Your task to perform on an android device: all mails in gmail Image 0: 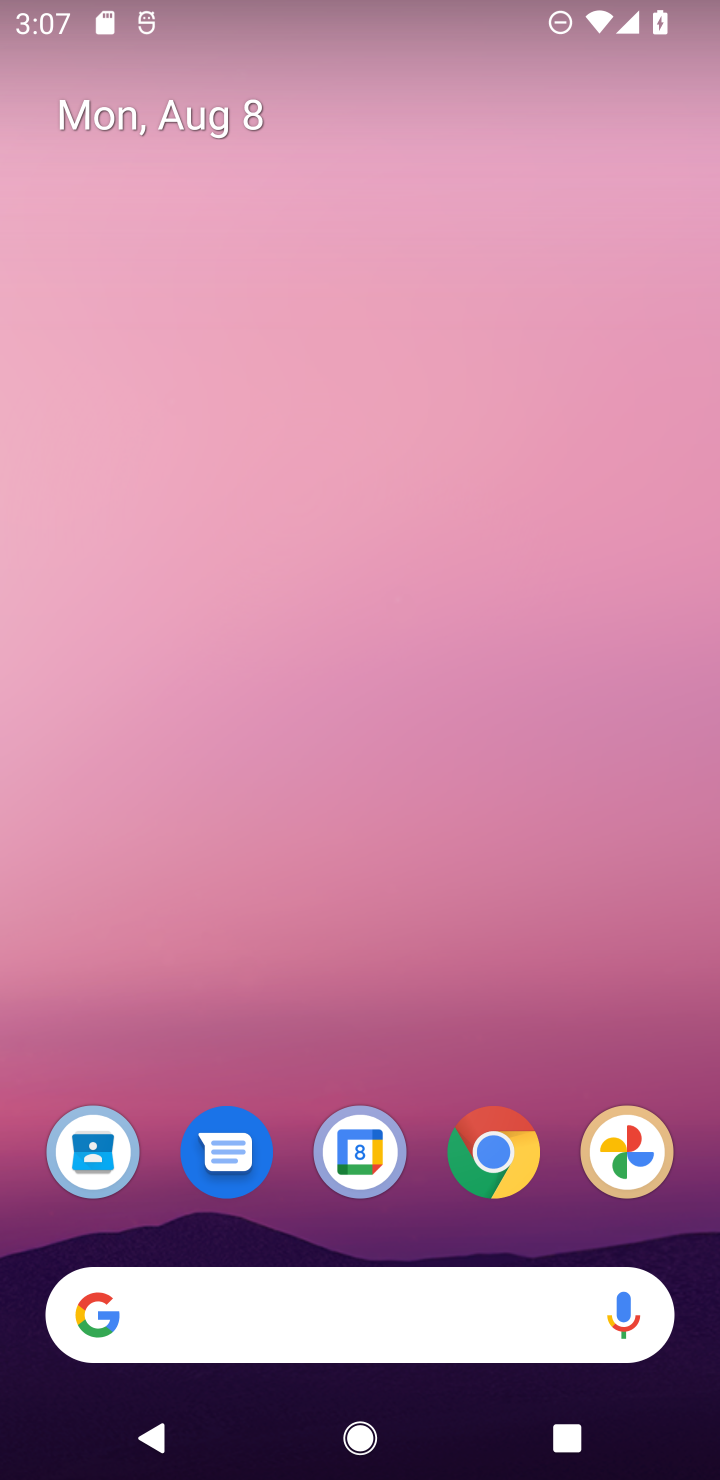
Step 0: drag from (276, 1101) to (254, 84)
Your task to perform on an android device: all mails in gmail Image 1: 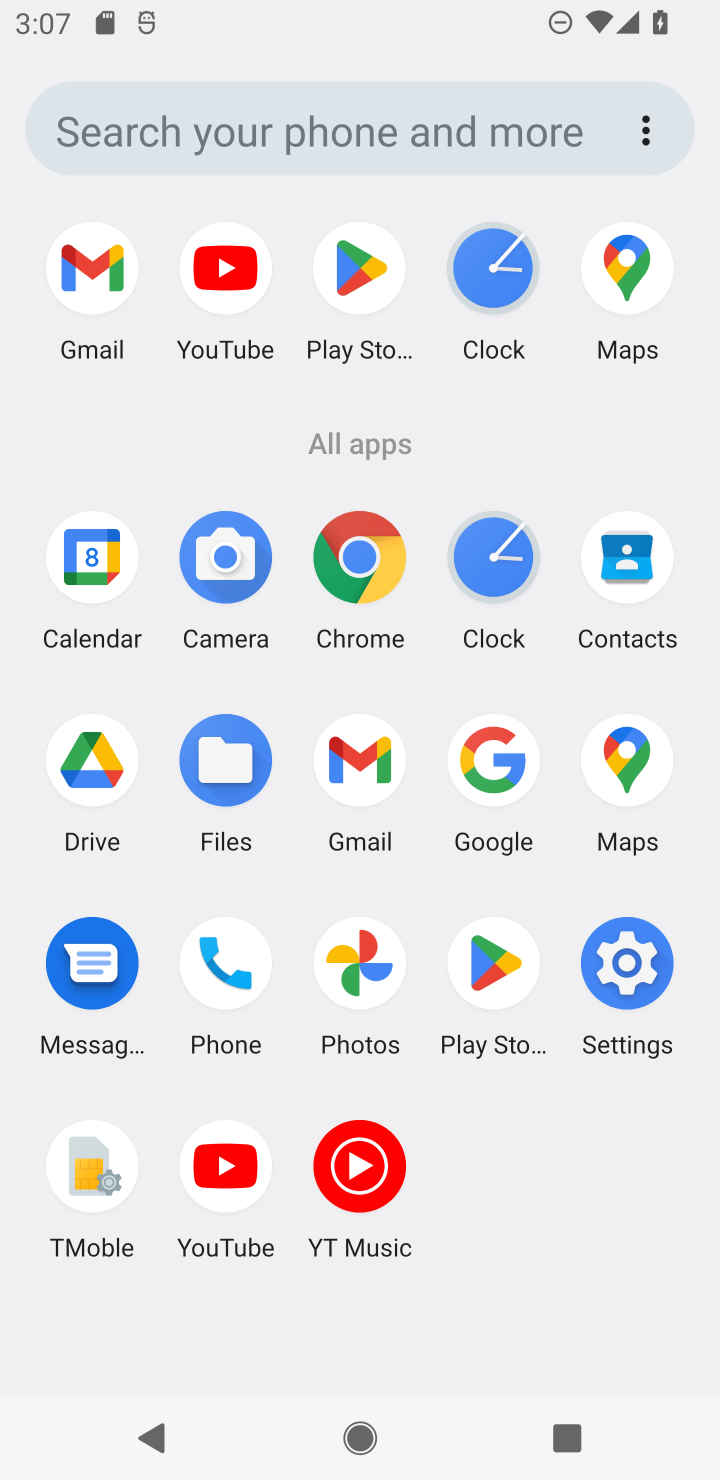
Step 1: click (359, 780)
Your task to perform on an android device: all mails in gmail Image 2: 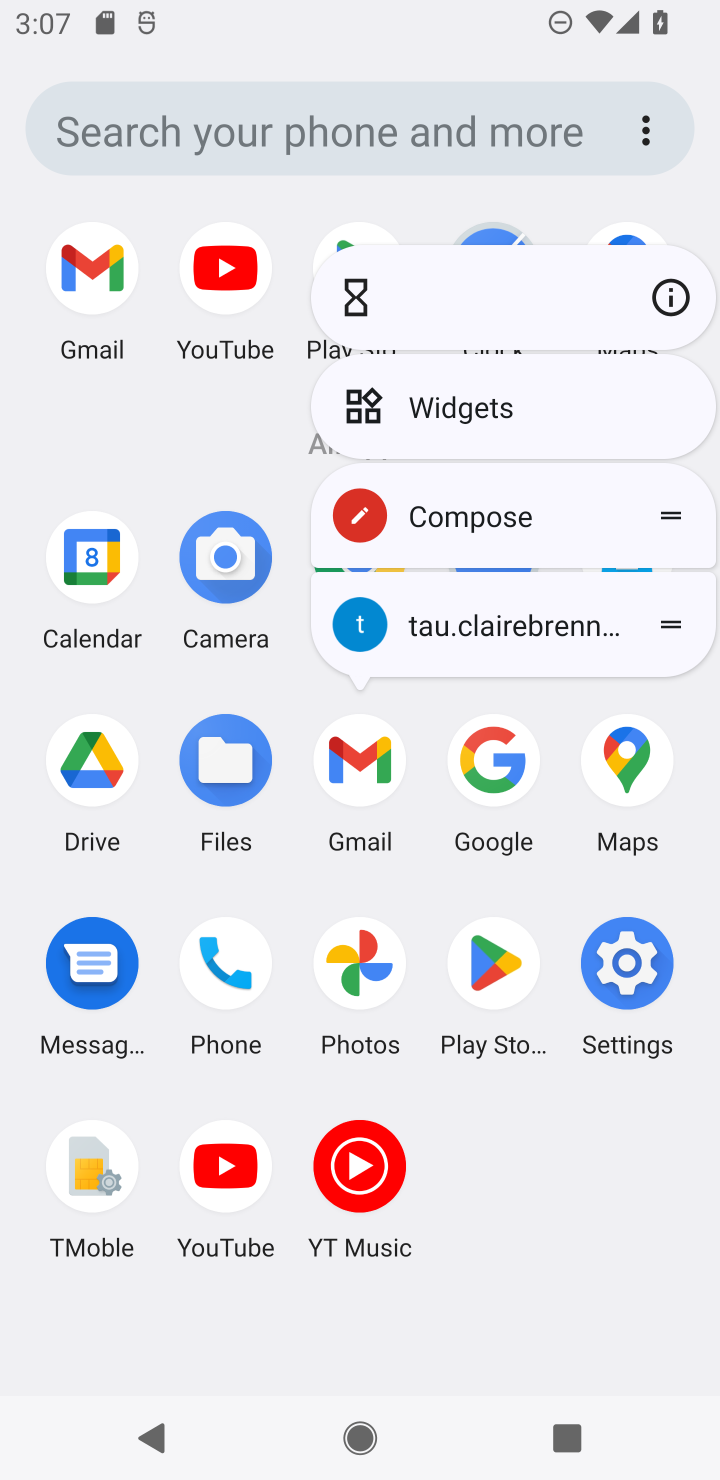
Step 2: click (359, 780)
Your task to perform on an android device: all mails in gmail Image 3: 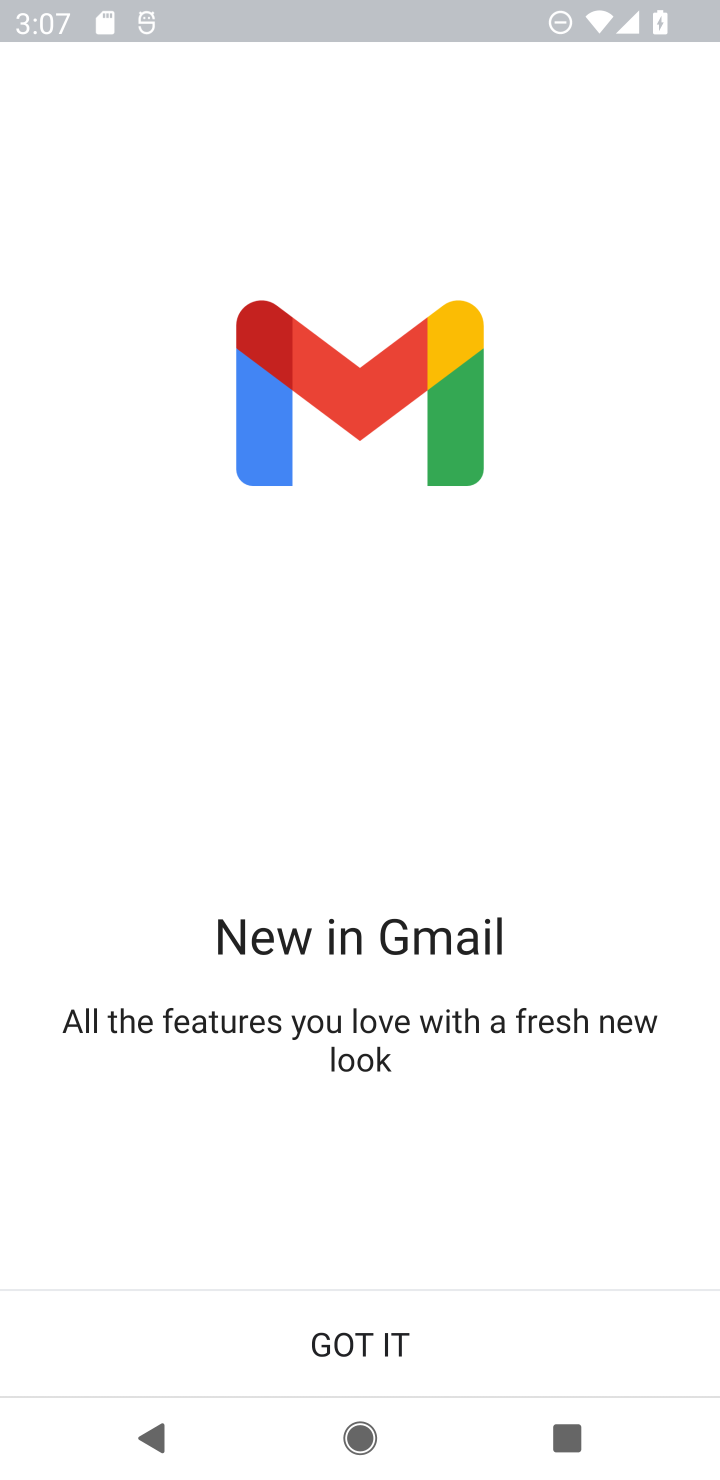
Step 3: click (340, 1364)
Your task to perform on an android device: all mails in gmail Image 4: 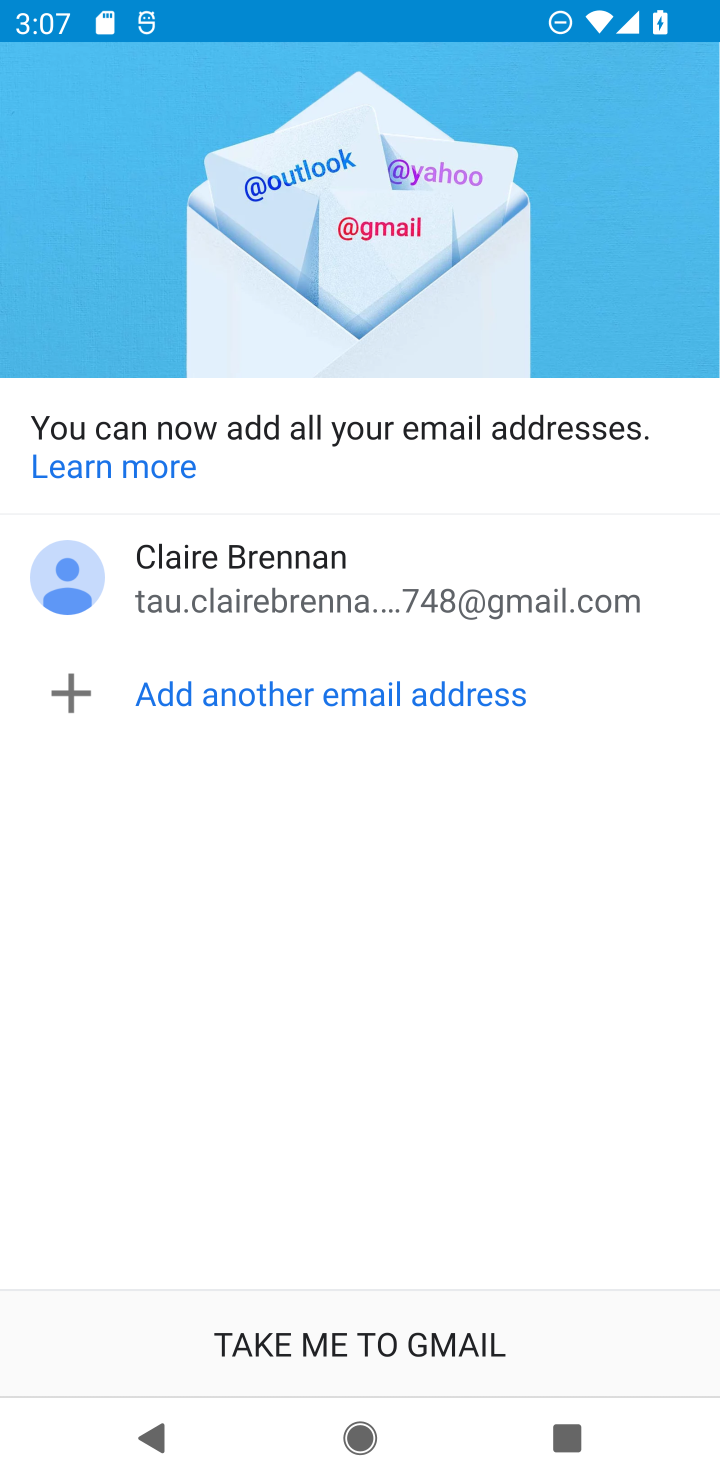
Step 4: click (359, 1346)
Your task to perform on an android device: all mails in gmail Image 5: 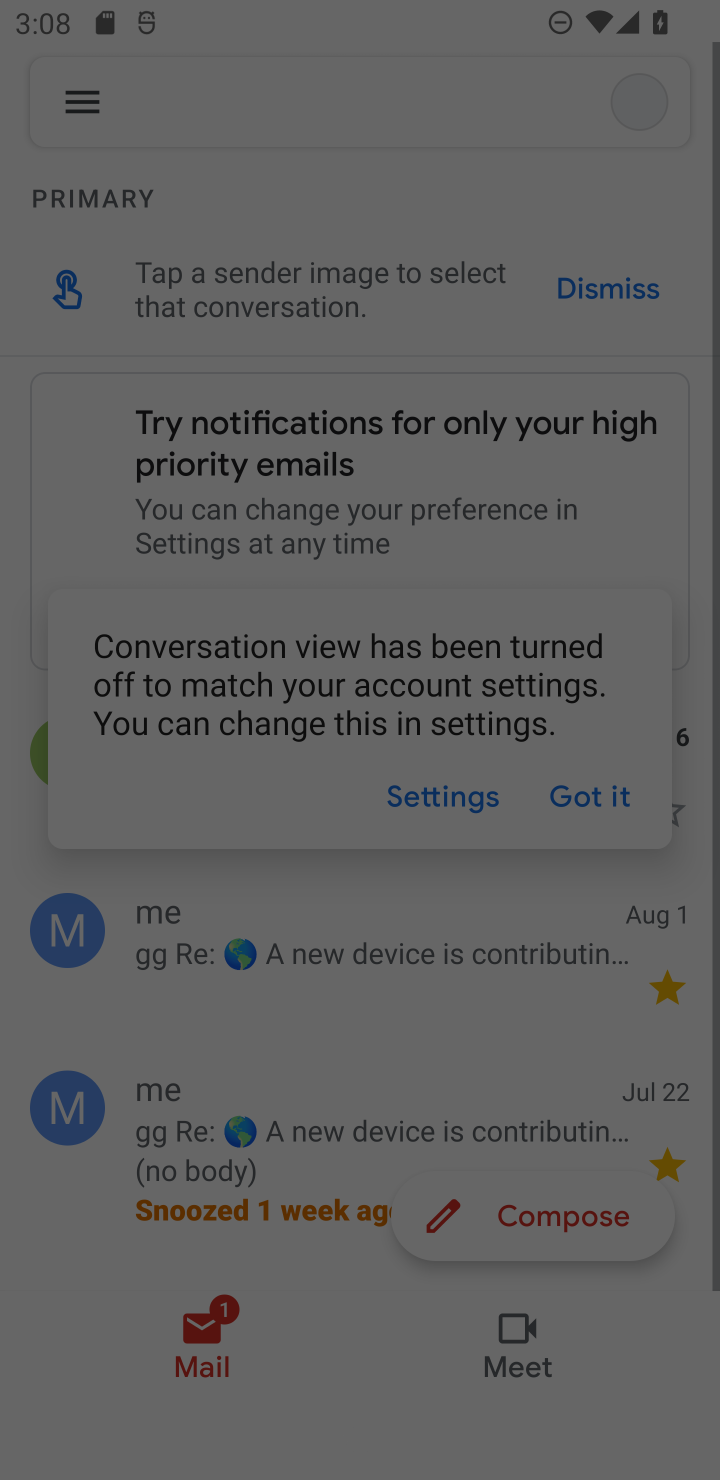
Step 5: click (584, 800)
Your task to perform on an android device: all mails in gmail Image 6: 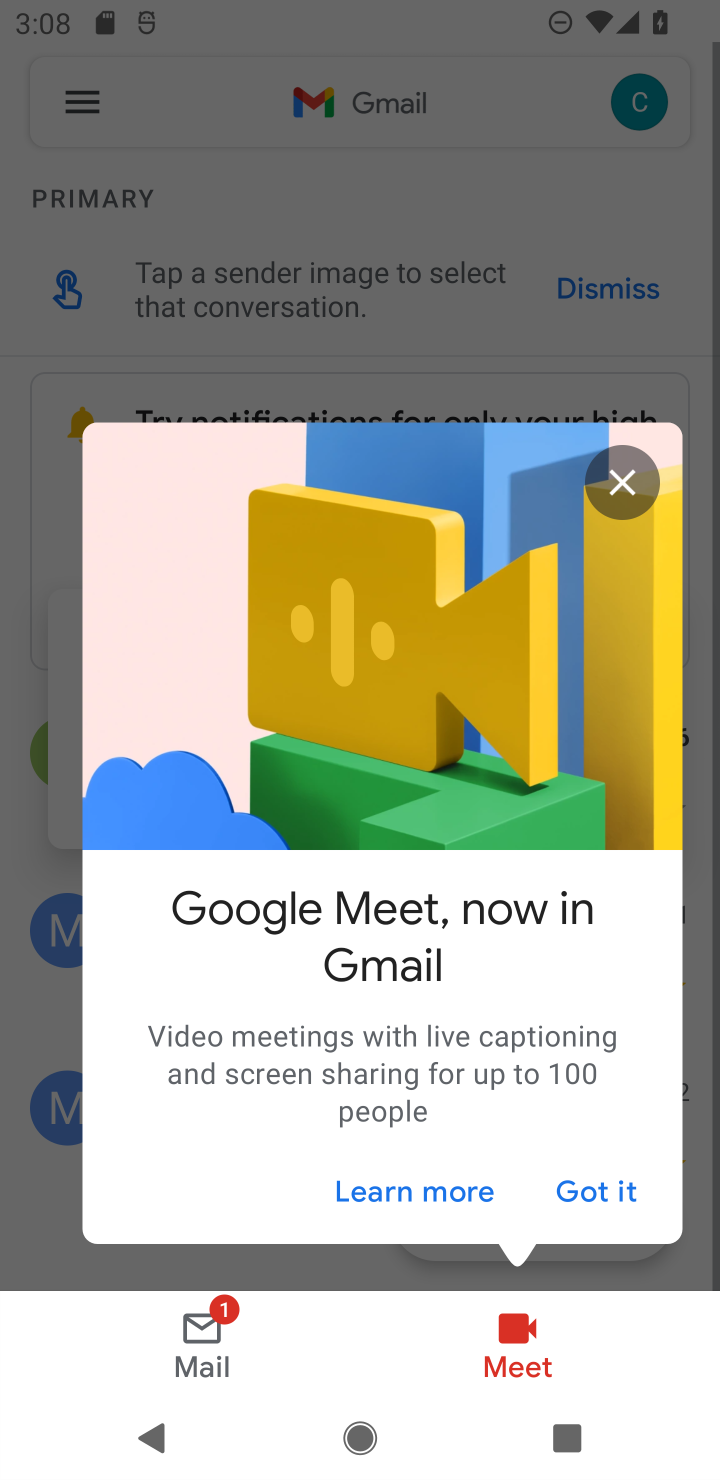
Step 6: click (628, 479)
Your task to perform on an android device: all mails in gmail Image 7: 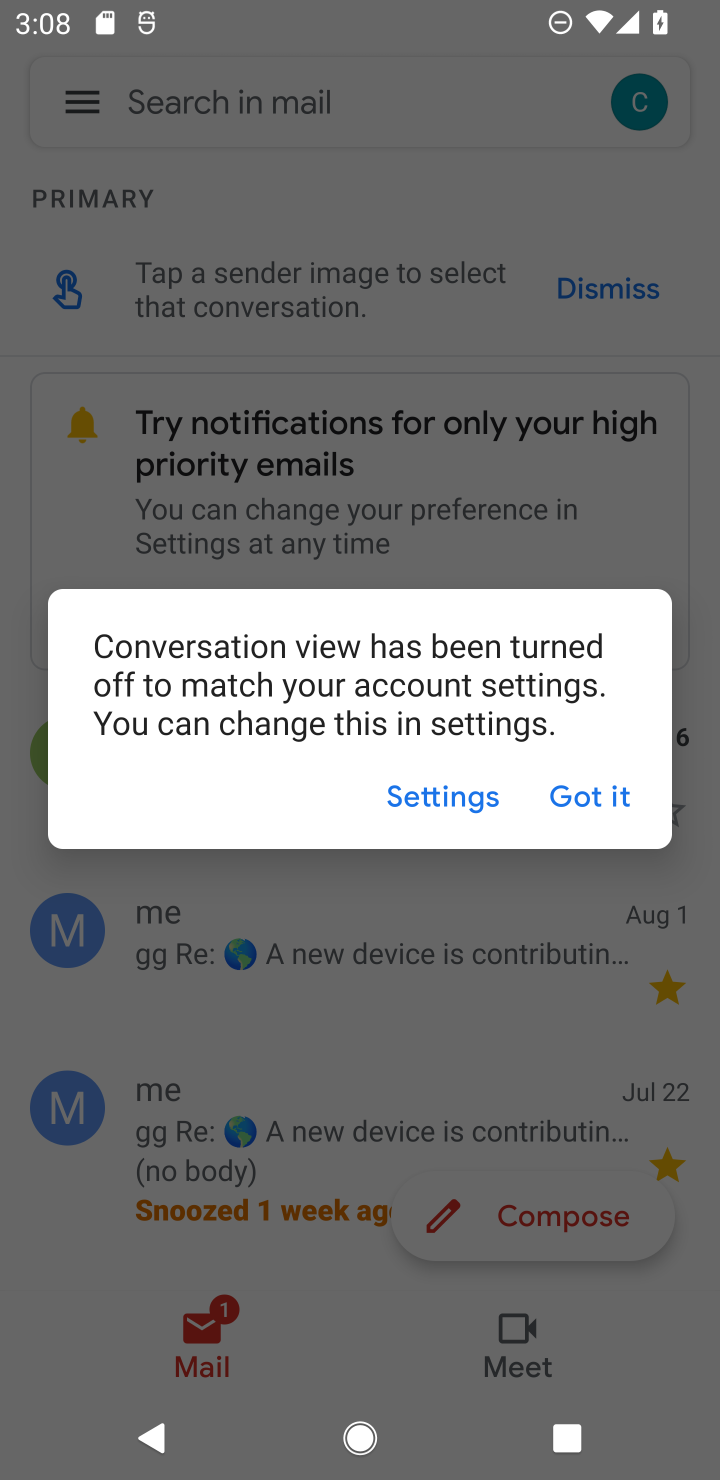
Step 7: click (601, 797)
Your task to perform on an android device: all mails in gmail Image 8: 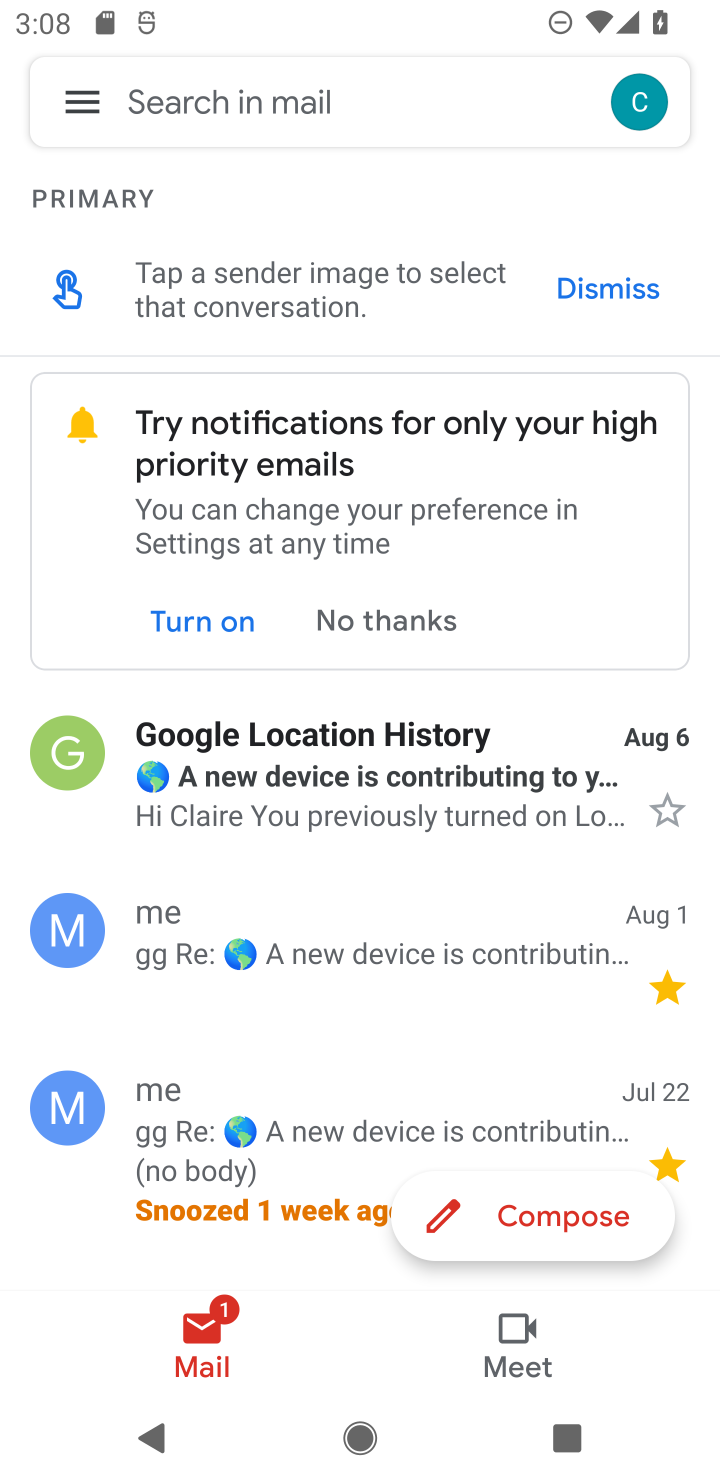
Step 8: click (78, 97)
Your task to perform on an android device: all mails in gmail Image 9: 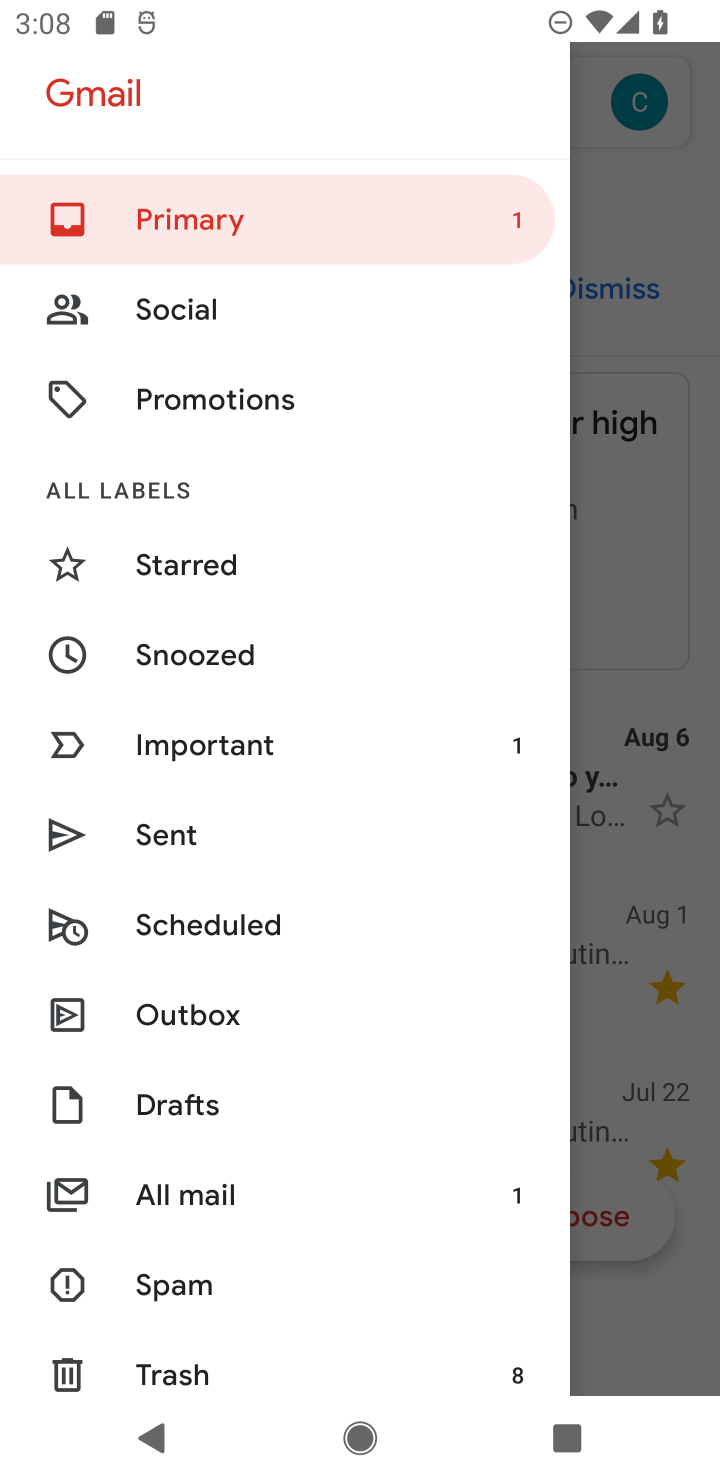
Step 9: click (211, 1203)
Your task to perform on an android device: all mails in gmail Image 10: 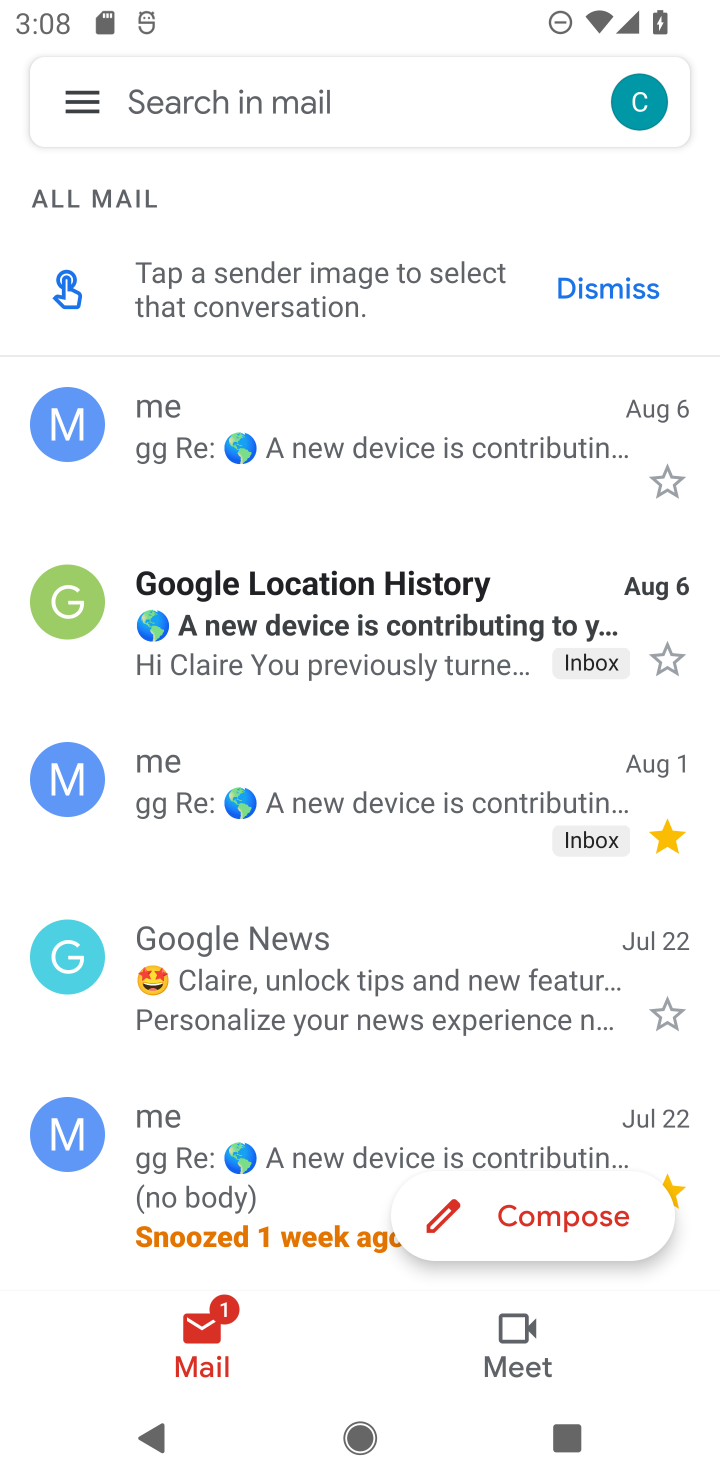
Step 10: task complete